Your task to perform on an android device: change keyboard looks Image 0: 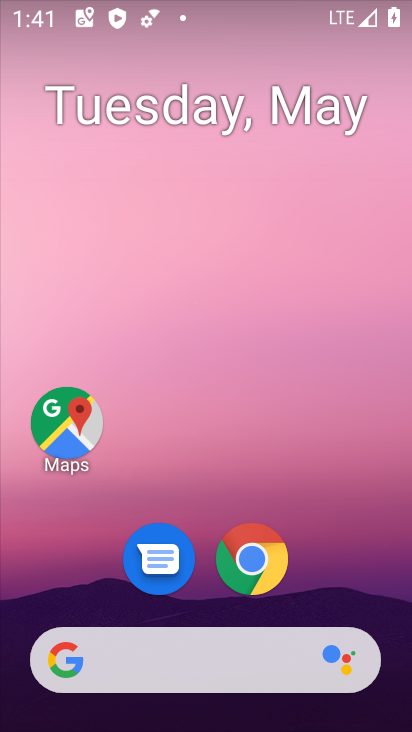
Step 0: drag from (358, 578) to (250, 74)
Your task to perform on an android device: change keyboard looks Image 1: 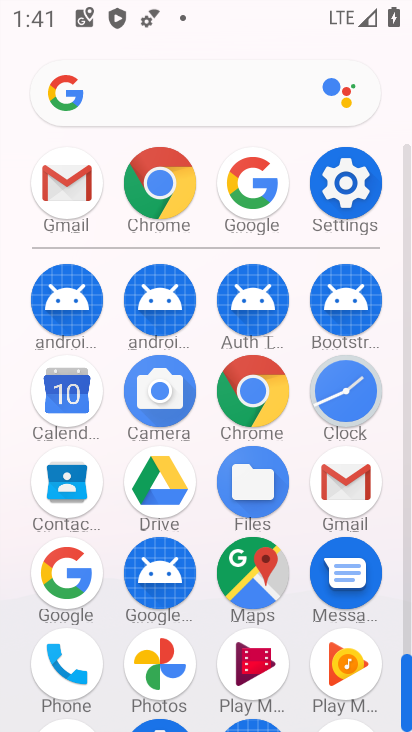
Step 1: click (341, 185)
Your task to perform on an android device: change keyboard looks Image 2: 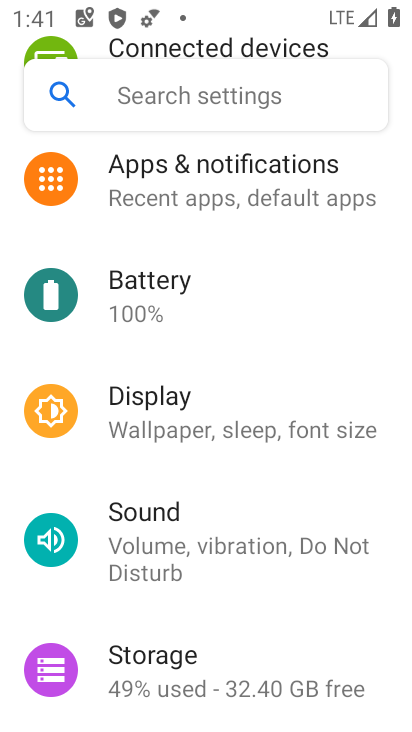
Step 2: drag from (274, 583) to (266, 177)
Your task to perform on an android device: change keyboard looks Image 3: 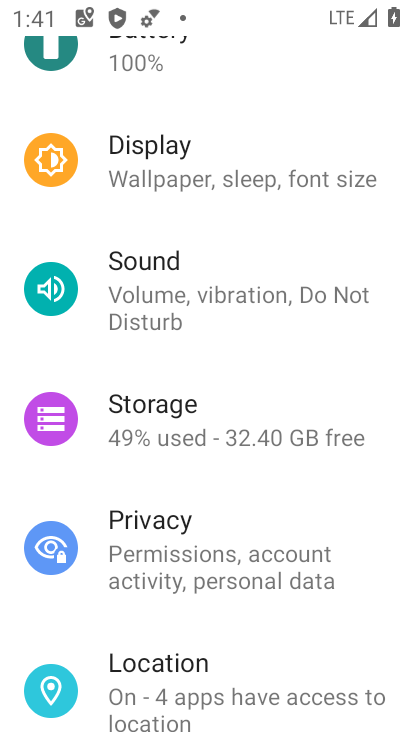
Step 3: drag from (248, 571) to (249, 194)
Your task to perform on an android device: change keyboard looks Image 4: 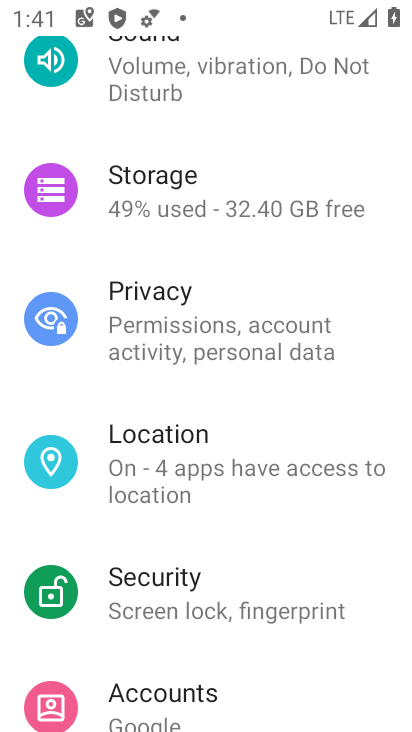
Step 4: drag from (243, 637) to (230, 164)
Your task to perform on an android device: change keyboard looks Image 5: 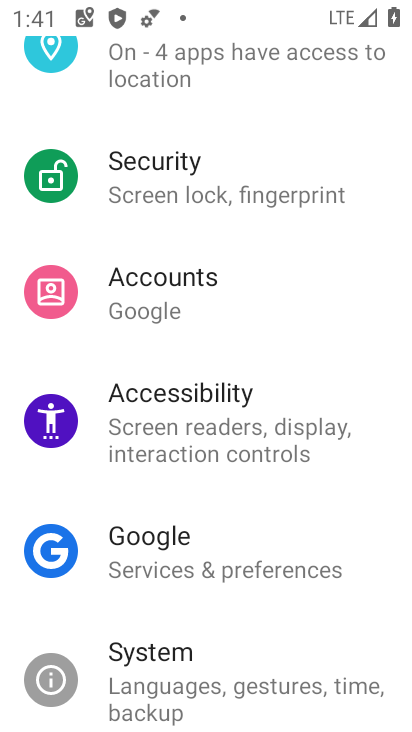
Step 5: drag from (216, 579) to (238, 212)
Your task to perform on an android device: change keyboard looks Image 6: 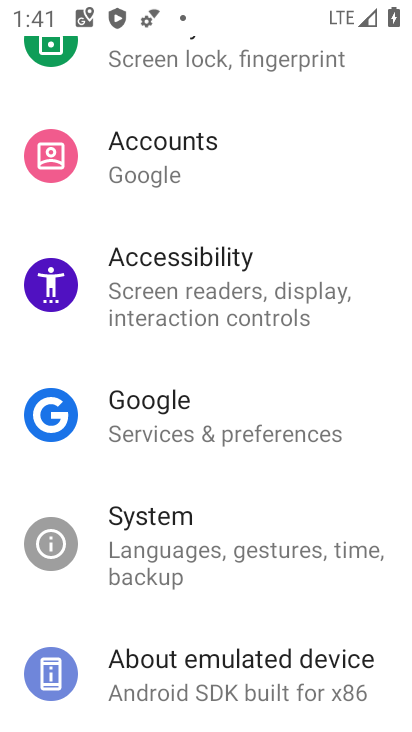
Step 6: click (226, 676)
Your task to perform on an android device: change keyboard looks Image 7: 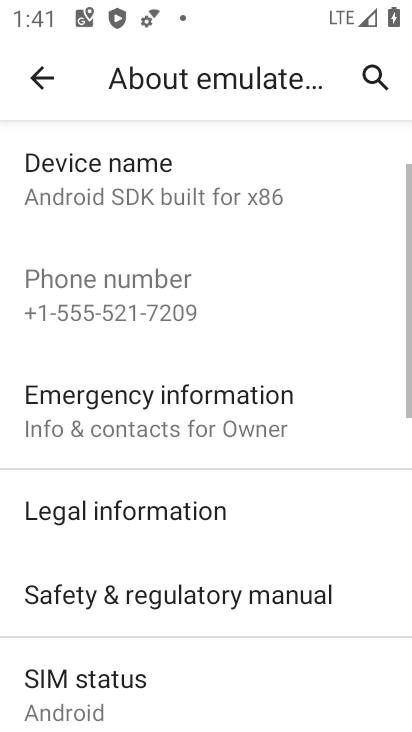
Step 7: drag from (242, 659) to (259, 120)
Your task to perform on an android device: change keyboard looks Image 8: 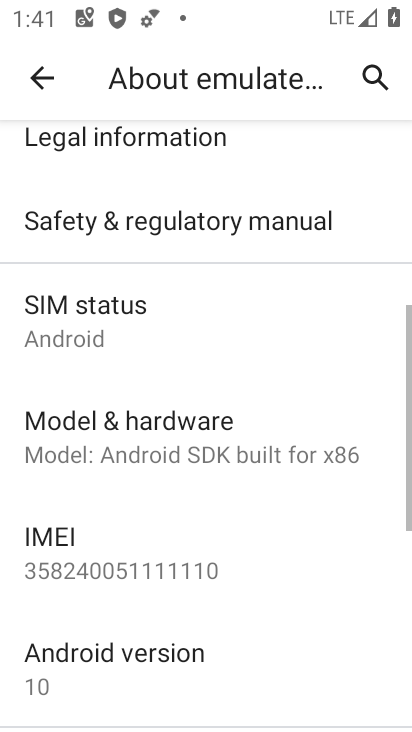
Step 8: press back button
Your task to perform on an android device: change keyboard looks Image 9: 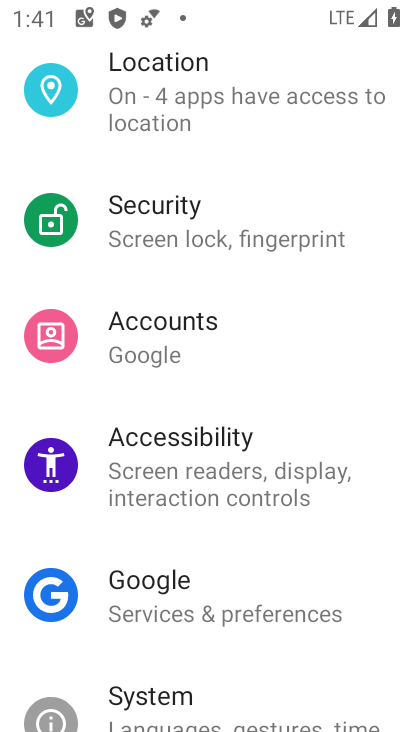
Step 9: click (207, 700)
Your task to perform on an android device: change keyboard looks Image 10: 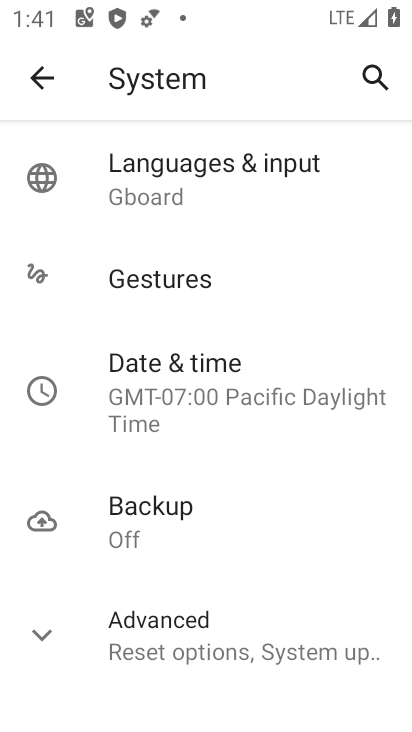
Step 10: click (192, 170)
Your task to perform on an android device: change keyboard looks Image 11: 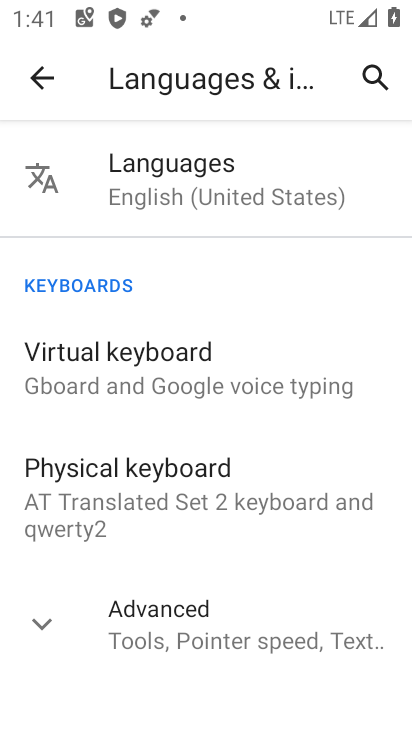
Step 11: click (178, 358)
Your task to perform on an android device: change keyboard looks Image 12: 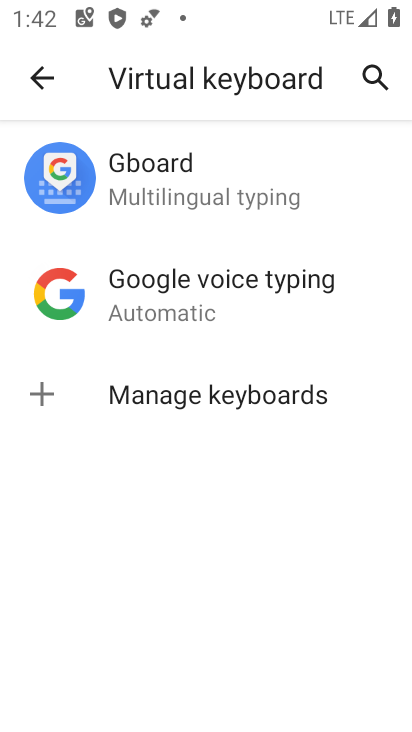
Step 12: click (177, 157)
Your task to perform on an android device: change keyboard looks Image 13: 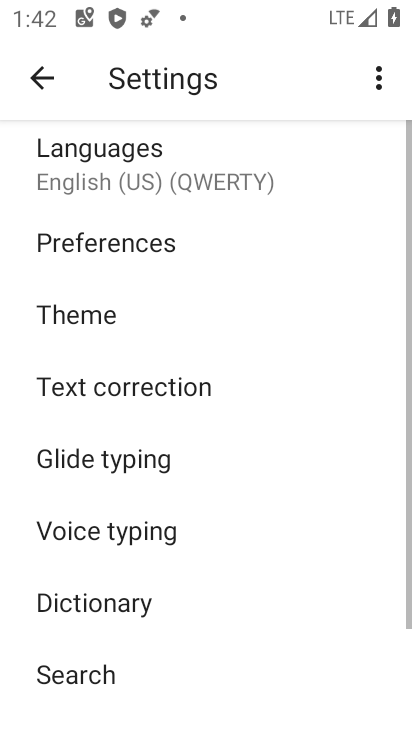
Step 13: click (161, 321)
Your task to perform on an android device: change keyboard looks Image 14: 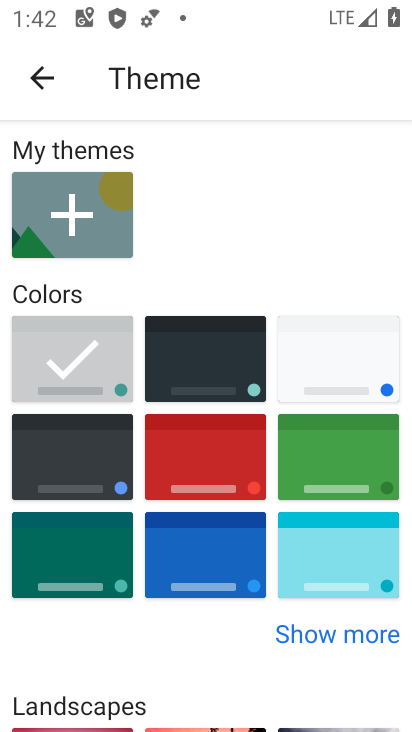
Step 14: click (211, 471)
Your task to perform on an android device: change keyboard looks Image 15: 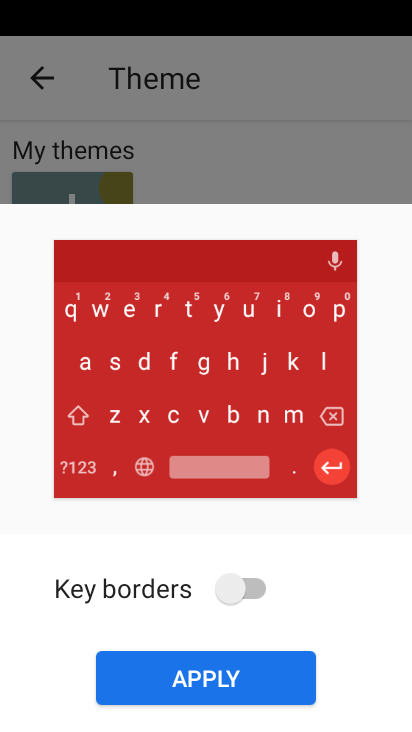
Step 15: click (204, 684)
Your task to perform on an android device: change keyboard looks Image 16: 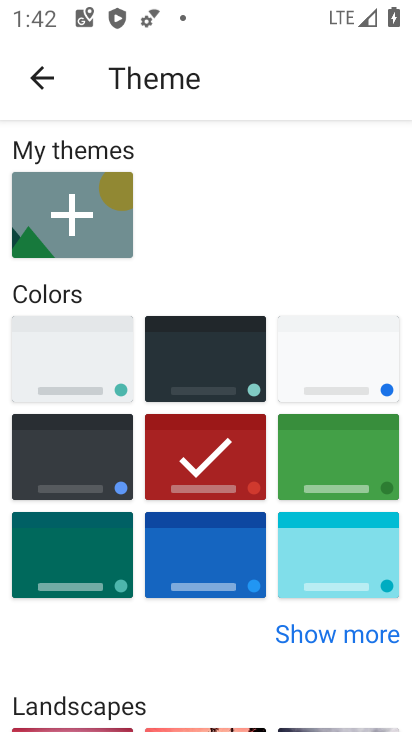
Step 16: task complete